Your task to perform on an android device: delete the emails in spam in the gmail app Image 0: 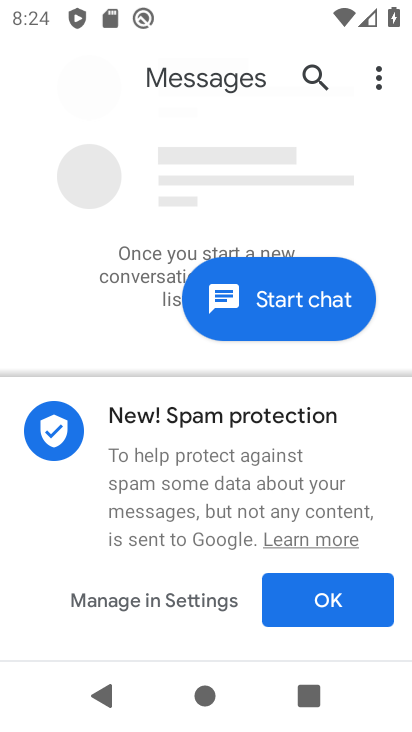
Step 0: press home button
Your task to perform on an android device: delete the emails in spam in the gmail app Image 1: 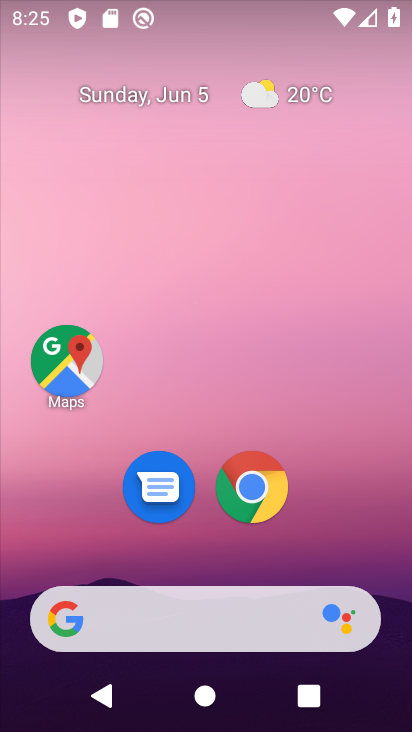
Step 1: drag from (261, 542) to (250, 177)
Your task to perform on an android device: delete the emails in spam in the gmail app Image 2: 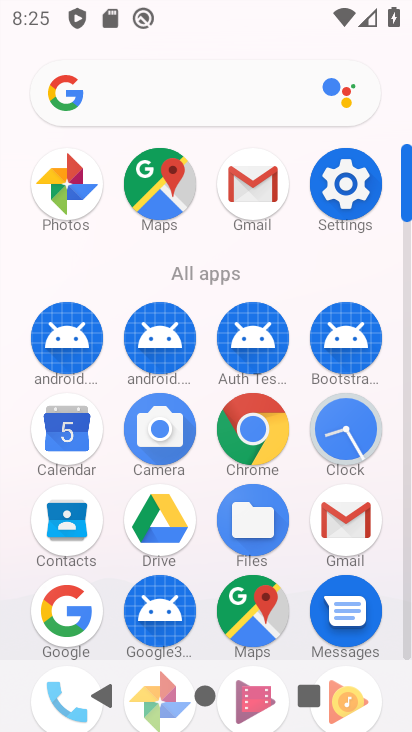
Step 2: click (353, 530)
Your task to perform on an android device: delete the emails in spam in the gmail app Image 3: 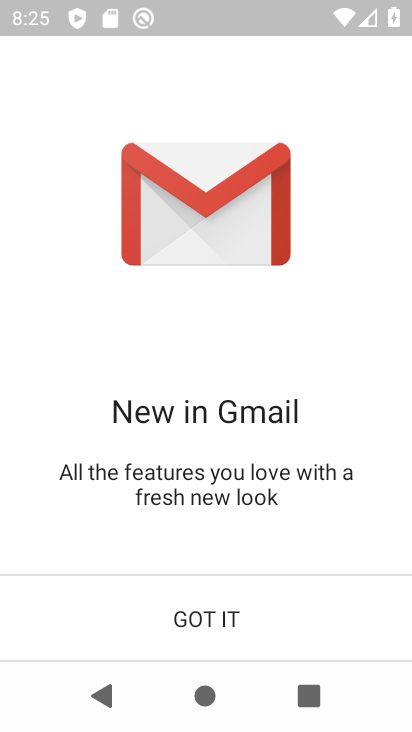
Step 3: click (274, 602)
Your task to perform on an android device: delete the emails in spam in the gmail app Image 4: 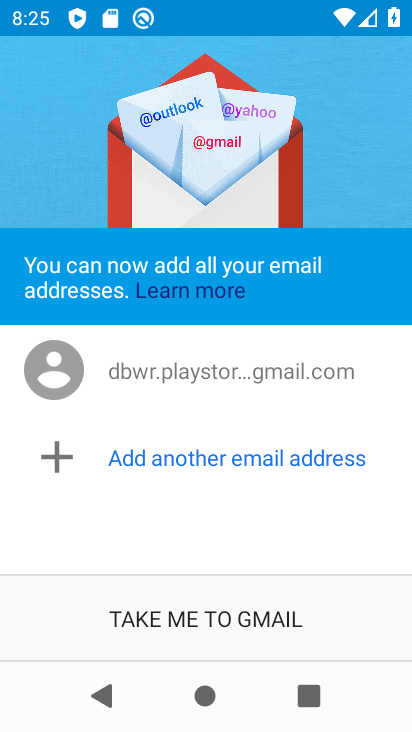
Step 4: click (198, 607)
Your task to perform on an android device: delete the emails in spam in the gmail app Image 5: 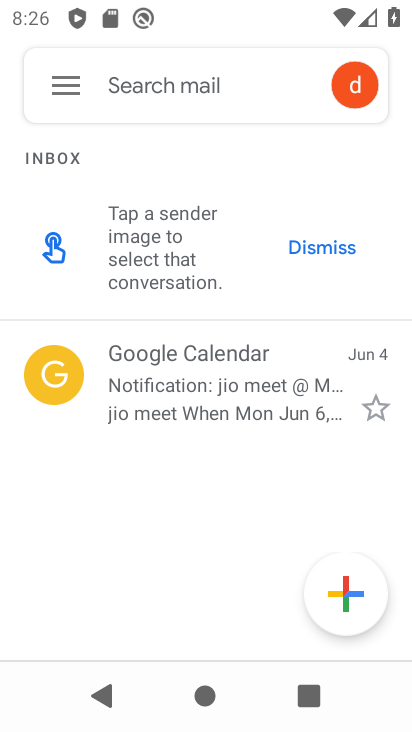
Step 5: click (190, 391)
Your task to perform on an android device: delete the emails in spam in the gmail app Image 6: 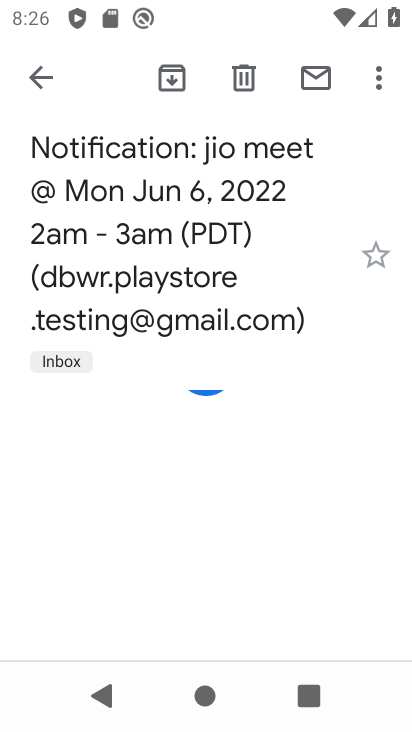
Step 6: click (246, 88)
Your task to perform on an android device: delete the emails in spam in the gmail app Image 7: 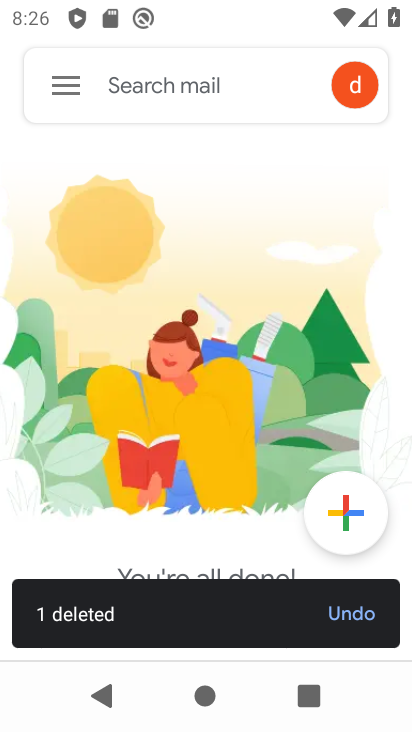
Step 7: task complete